Your task to perform on an android device: Open Google Maps and go to "Timeline" Image 0: 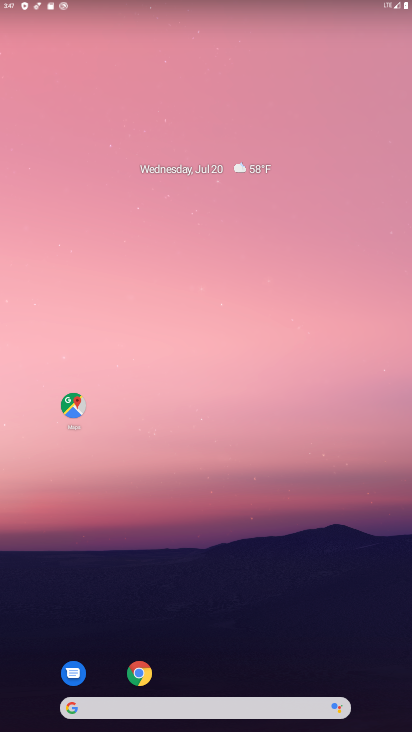
Step 0: drag from (204, 604) to (199, 335)
Your task to perform on an android device: Open Google Maps and go to "Timeline" Image 1: 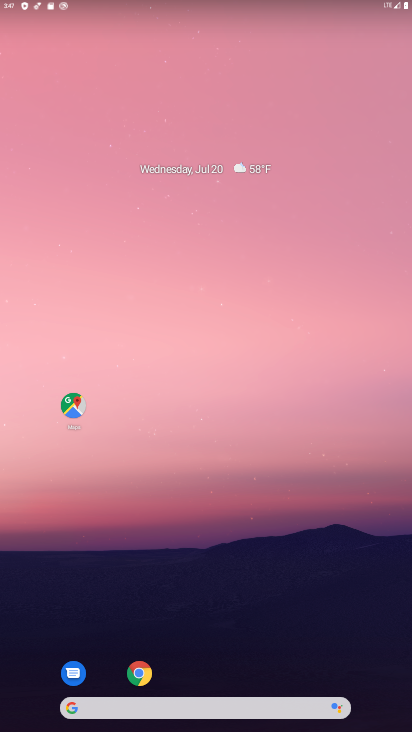
Step 1: click (80, 408)
Your task to perform on an android device: Open Google Maps and go to "Timeline" Image 2: 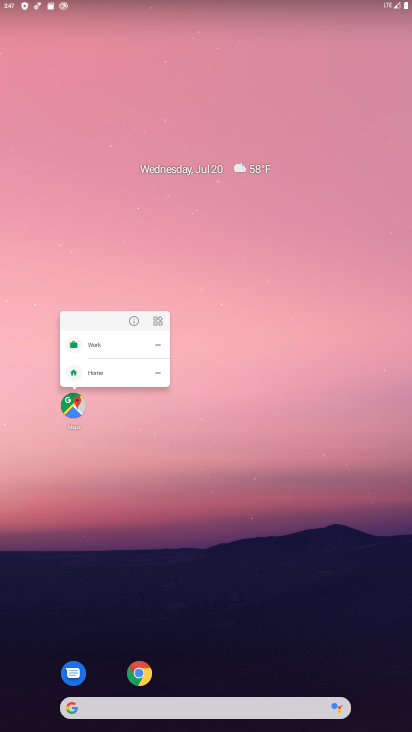
Step 2: click (73, 408)
Your task to perform on an android device: Open Google Maps and go to "Timeline" Image 3: 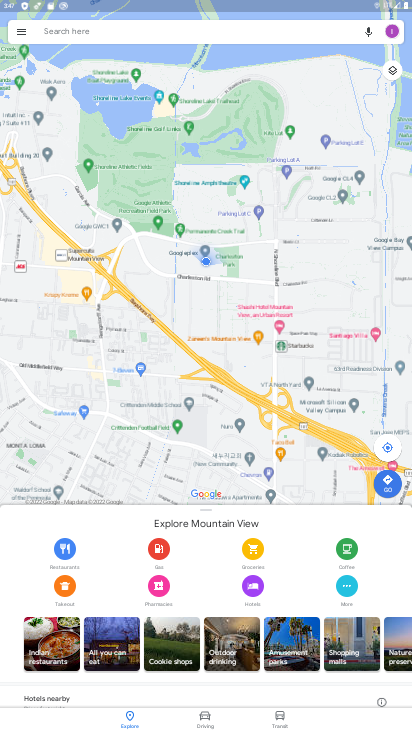
Step 3: click (23, 32)
Your task to perform on an android device: Open Google Maps and go to "Timeline" Image 4: 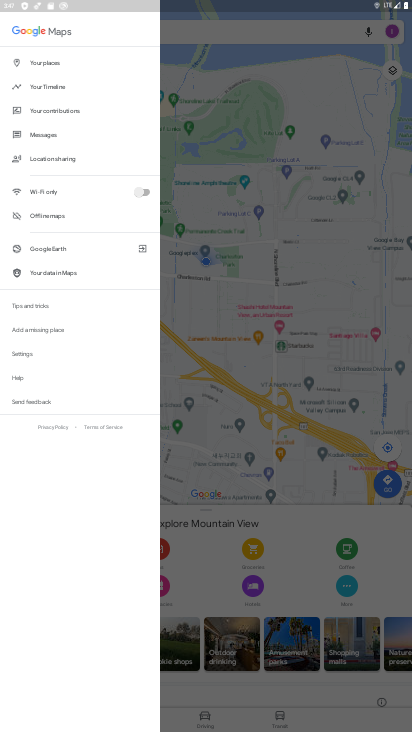
Step 4: click (49, 87)
Your task to perform on an android device: Open Google Maps and go to "Timeline" Image 5: 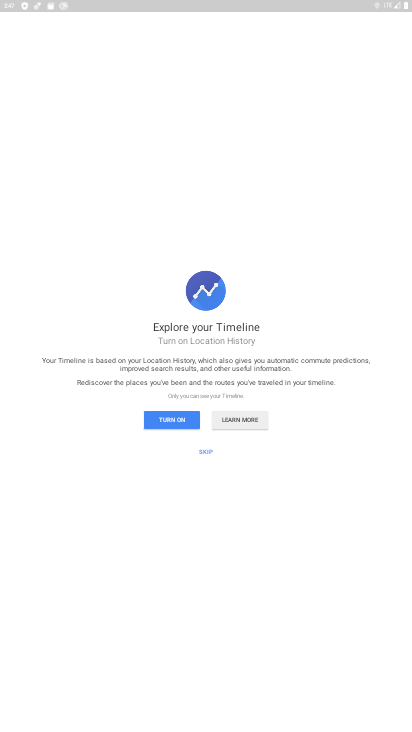
Step 5: click (54, 83)
Your task to perform on an android device: Open Google Maps and go to "Timeline" Image 6: 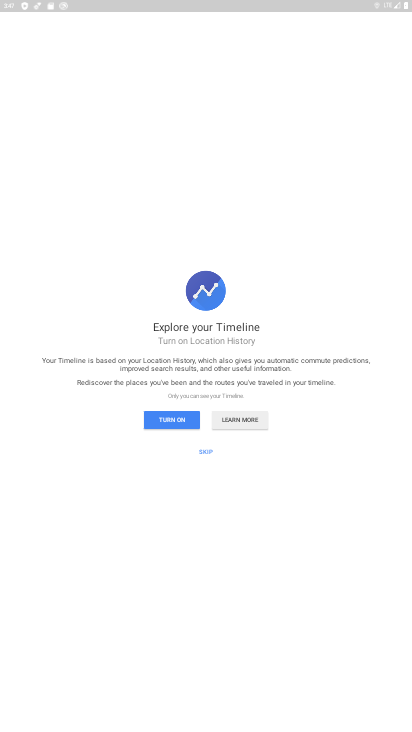
Step 6: task complete